Your task to perform on an android device: Open settings on Google Maps Image 0: 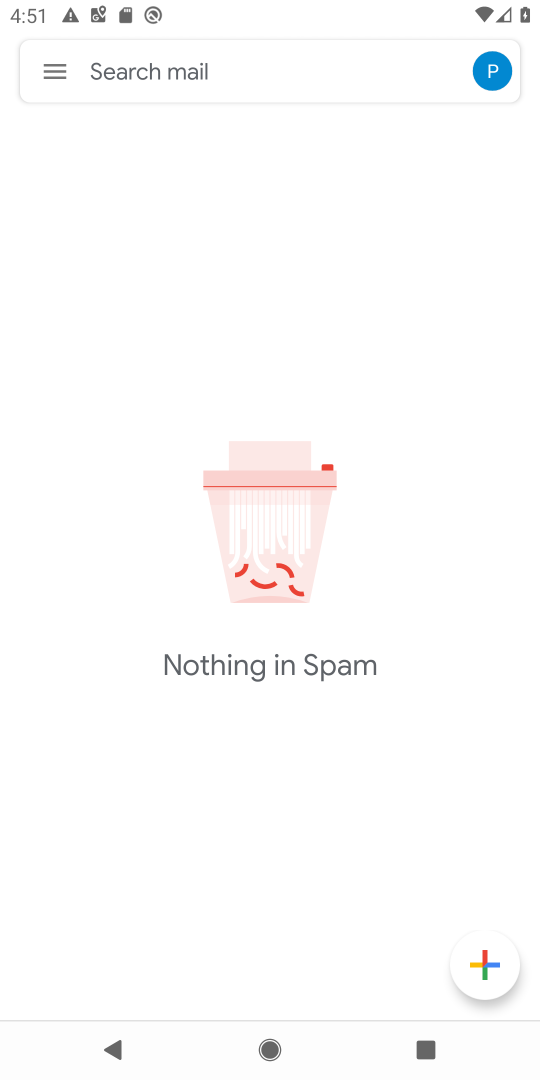
Step 0: press back button
Your task to perform on an android device: Open settings on Google Maps Image 1: 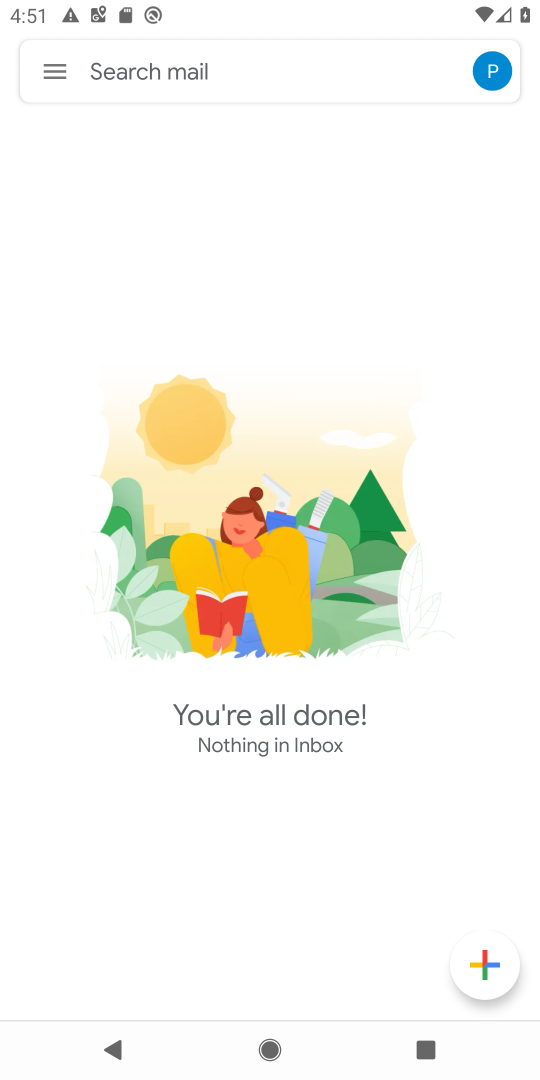
Step 1: press back button
Your task to perform on an android device: Open settings on Google Maps Image 2: 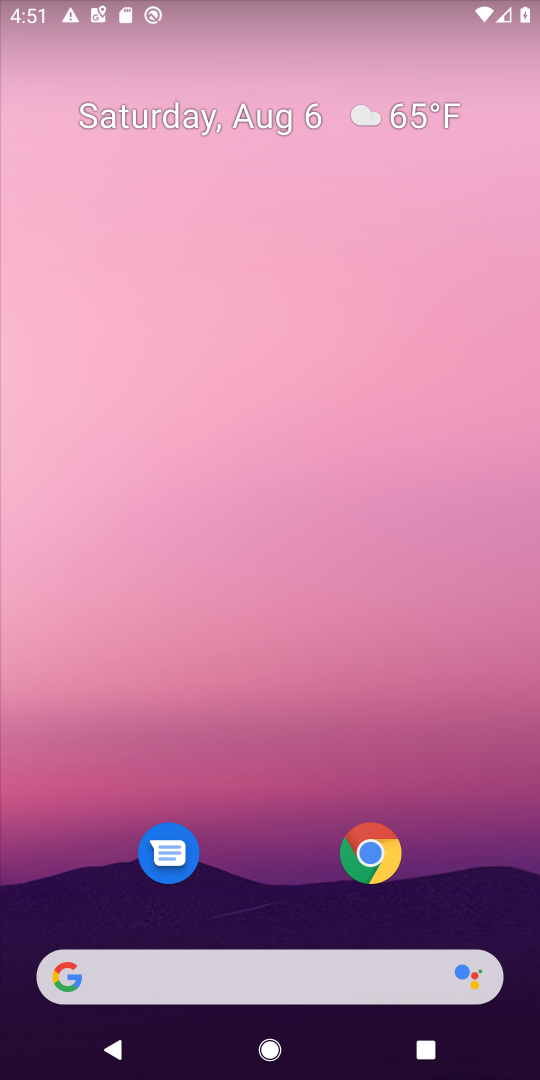
Step 2: drag from (266, 808) to (380, 0)
Your task to perform on an android device: Open settings on Google Maps Image 3: 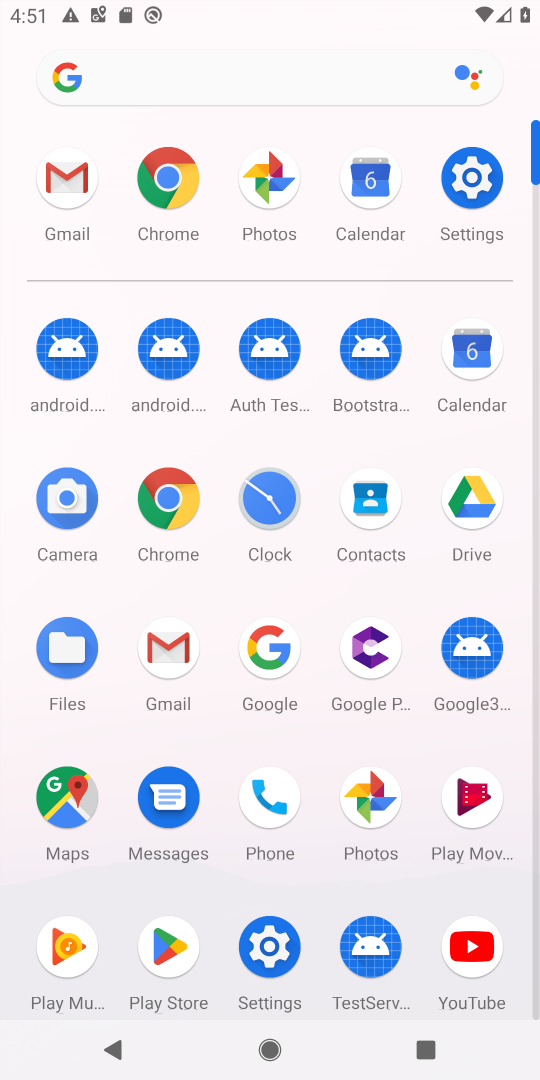
Step 3: click (83, 808)
Your task to perform on an android device: Open settings on Google Maps Image 4: 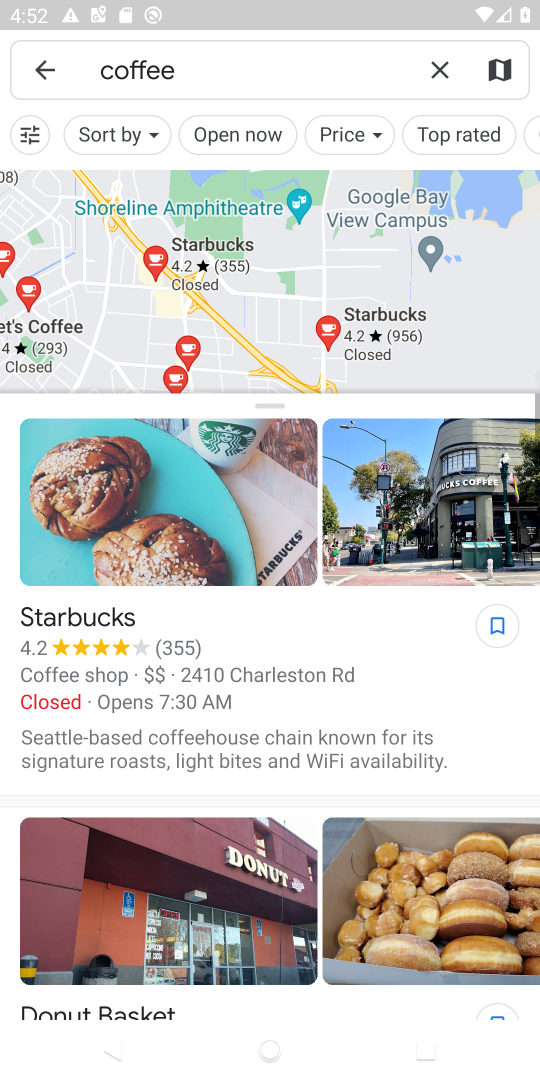
Step 4: click (40, 62)
Your task to perform on an android device: Open settings on Google Maps Image 5: 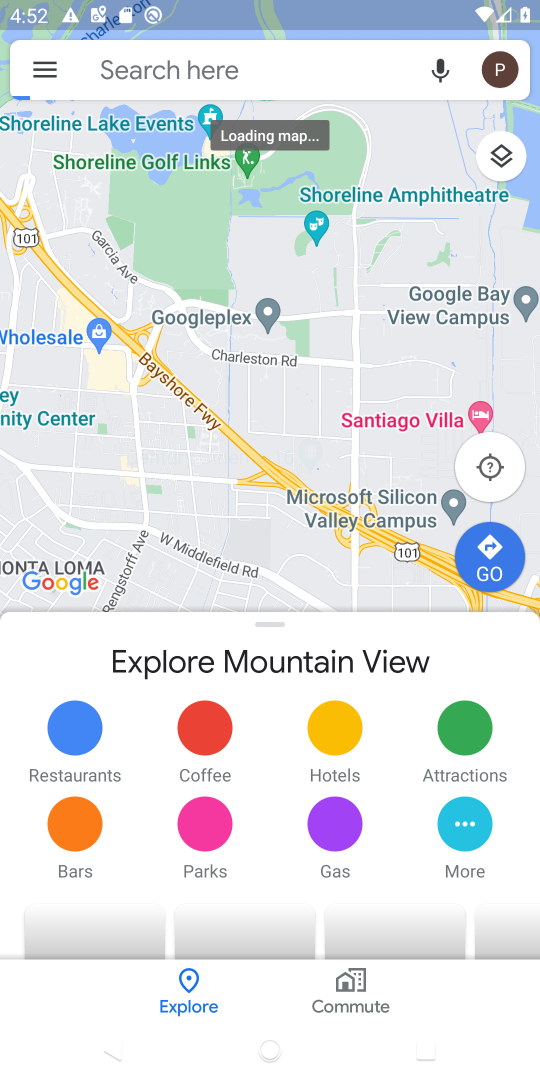
Step 5: click (38, 67)
Your task to perform on an android device: Open settings on Google Maps Image 6: 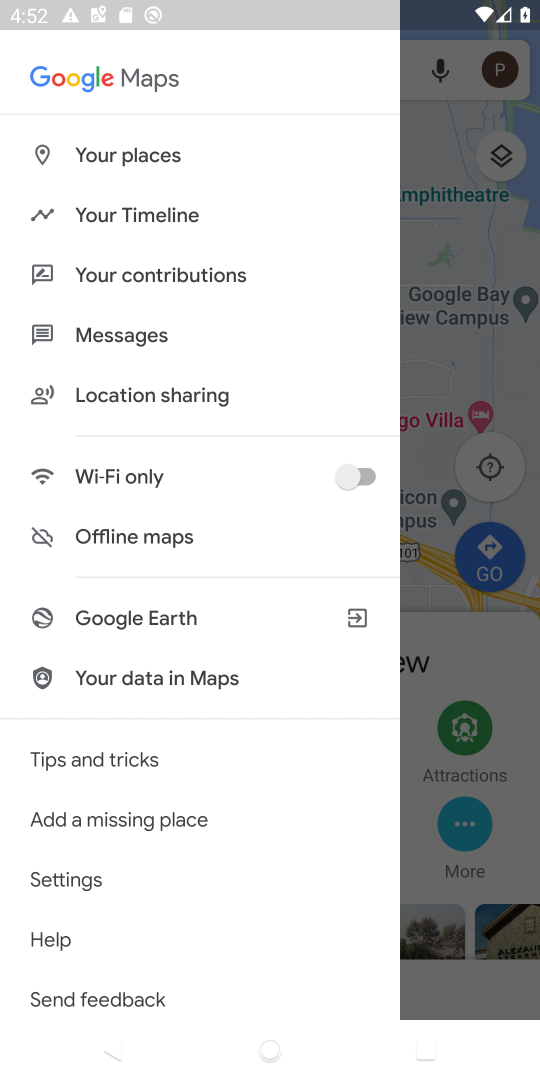
Step 6: click (89, 863)
Your task to perform on an android device: Open settings on Google Maps Image 7: 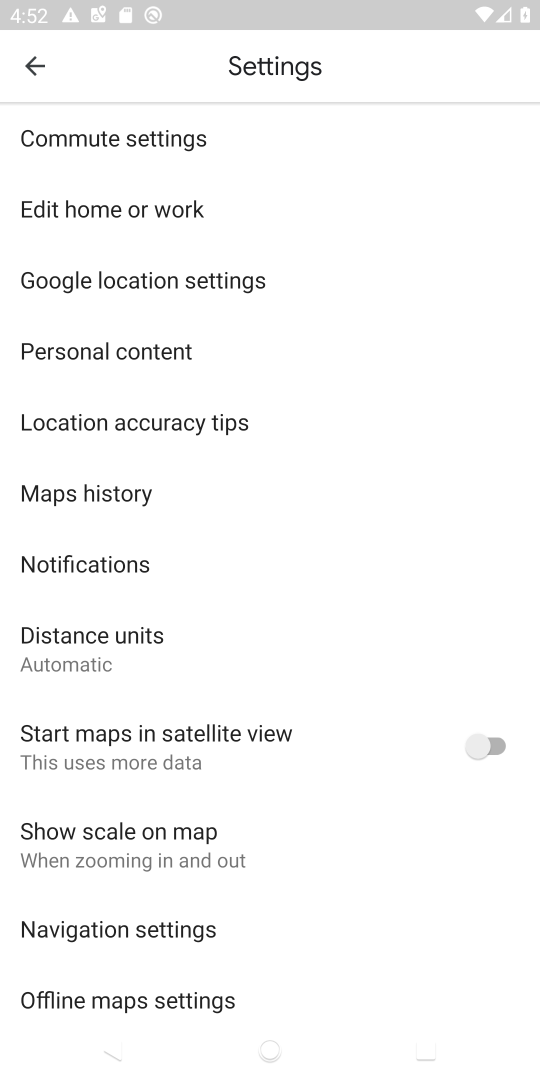
Step 7: task complete